Your task to perform on an android device: Open Google Chrome Image 0: 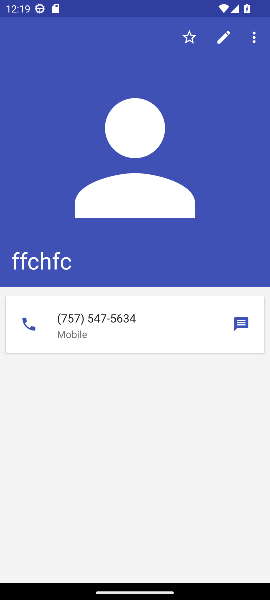
Step 0: press home button
Your task to perform on an android device: Open Google Chrome Image 1: 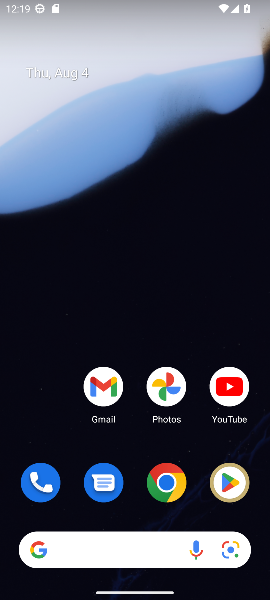
Step 1: click (167, 475)
Your task to perform on an android device: Open Google Chrome Image 2: 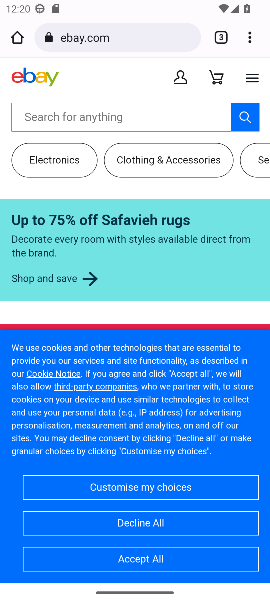
Step 2: task complete